Your task to perform on an android device: empty trash in google photos Image 0: 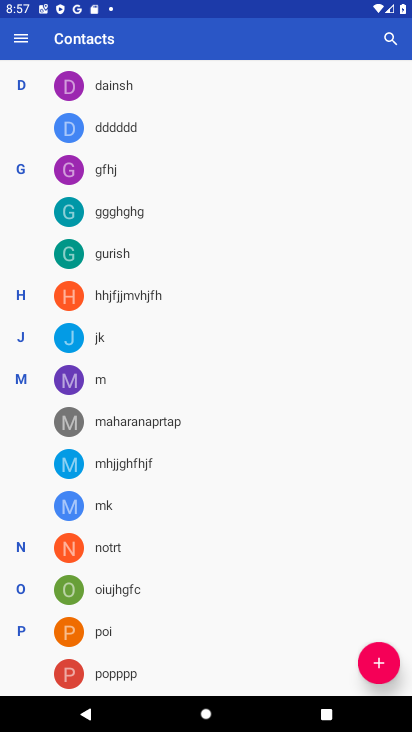
Step 0: press home button
Your task to perform on an android device: empty trash in google photos Image 1: 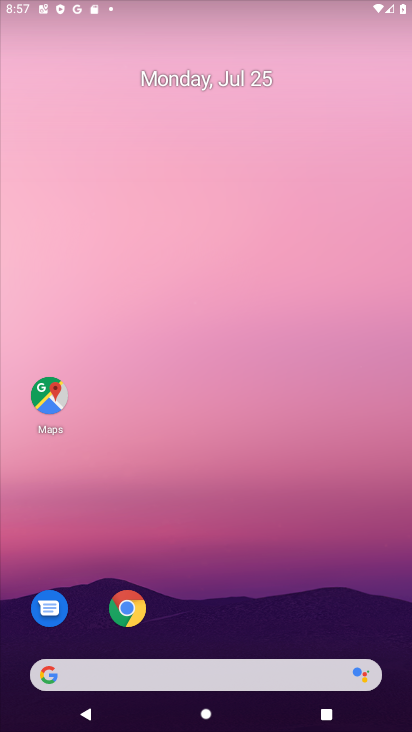
Step 1: drag from (155, 658) to (197, 138)
Your task to perform on an android device: empty trash in google photos Image 2: 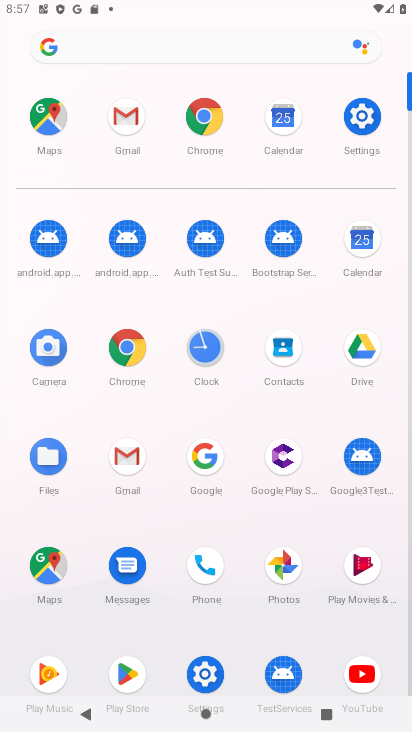
Step 2: click (278, 558)
Your task to perform on an android device: empty trash in google photos Image 3: 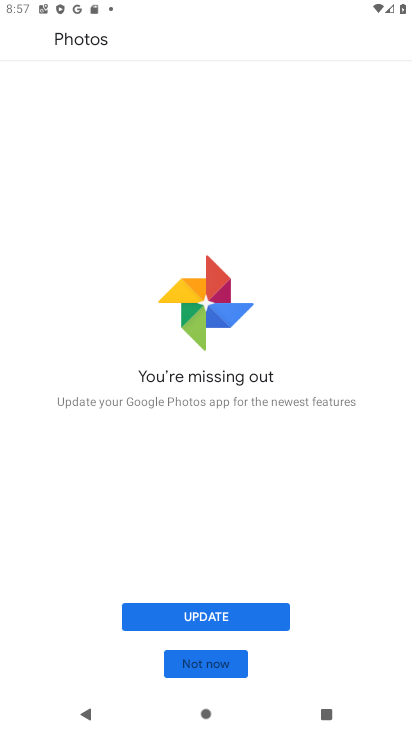
Step 3: click (200, 657)
Your task to perform on an android device: empty trash in google photos Image 4: 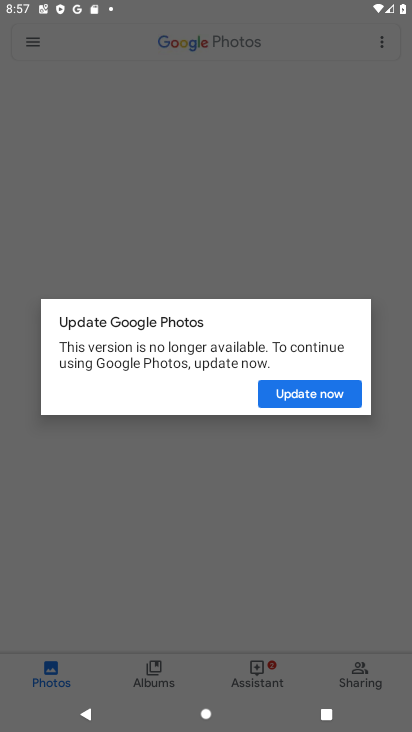
Step 4: click (299, 377)
Your task to perform on an android device: empty trash in google photos Image 5: 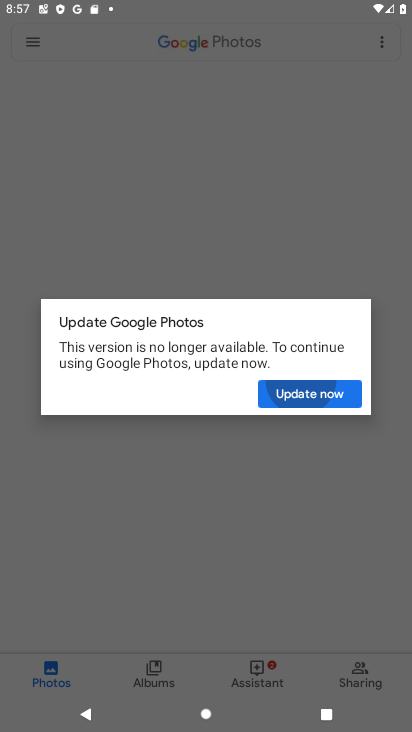
Step 5: click (299, 389)
Your task to perform on an android device: empty trash in google photos Image 6: 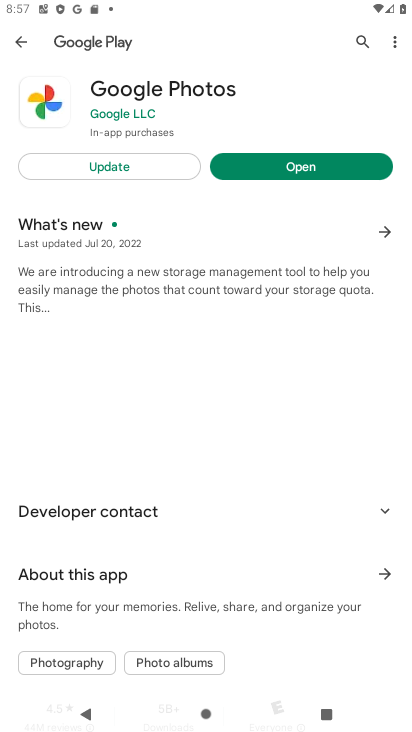
Step 6: press back button
Your task to perform on an android device: empty trash in google photos Image 7: 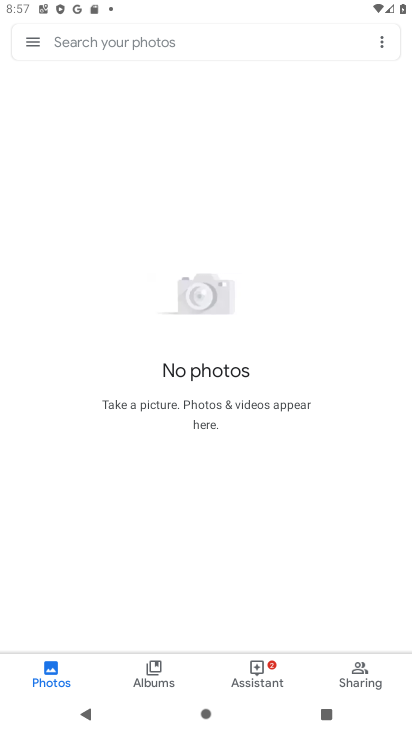
Step 7: click (21, 32)
Your task to perform on an android device: empty trash in google photos Image 8: 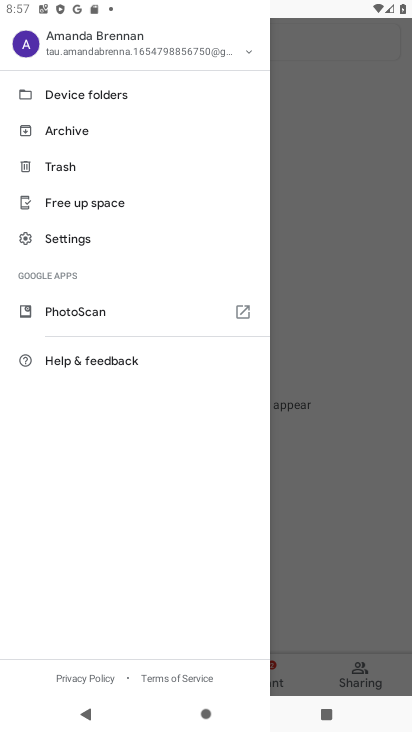
Step 8: click (89, 164)
Your task to perform on an android device: empty trash in google photos Image 9: 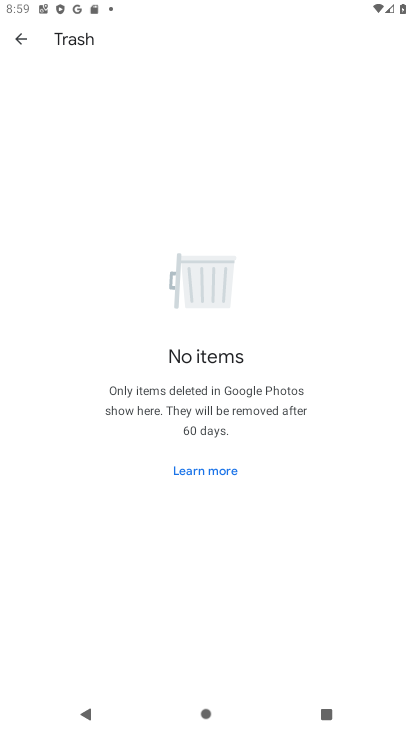
Step 9: task complete